Your task to perform on an android device: Go to settings Image 0: 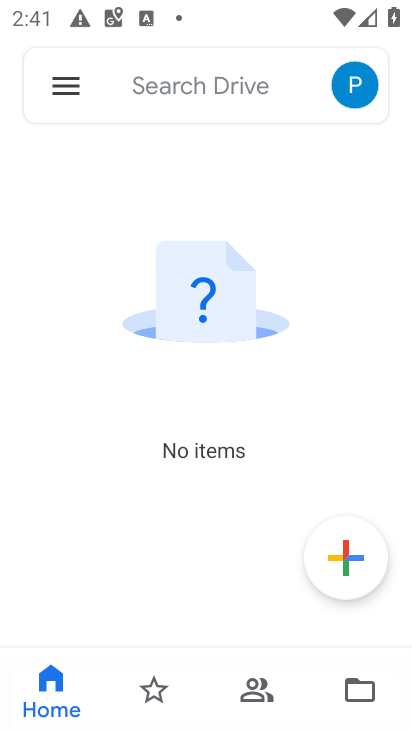
Step 0: press home button
Your task to perform on an android device: Go to settings Image 1: 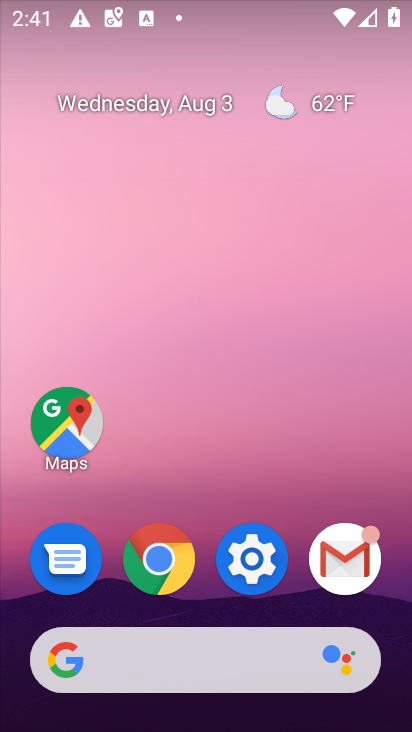
Step 1: click (232, 564)
Your task to perform on an android device: Go to settings Image 2: 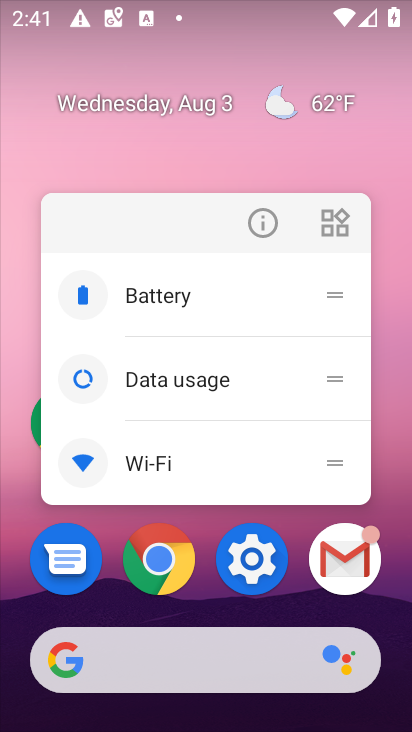
Step 2: click (214, 154)
Your task to perform on an android device: Go to settings Image 3: 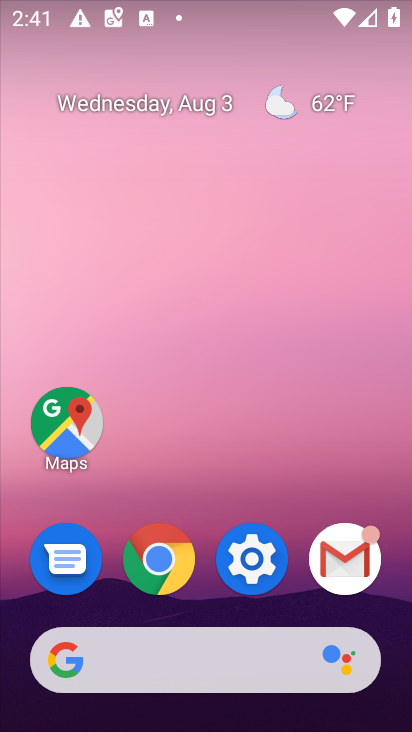
Step 3: drag from (248, 668) to (181, 132)
Your task to perform on an android device: Go to settings Image 4: 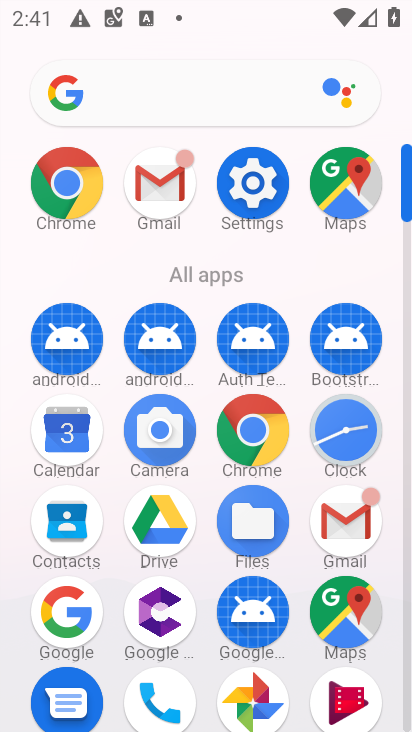
Step 4: click (248, 188)
Your task to perform on an android device: Go to settings Image 5: 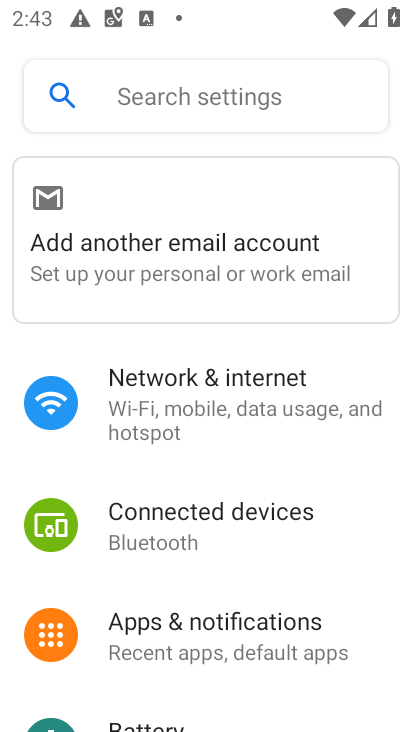
Step 5: task complete